Your task to perform on an android device: set the stopwatch Image 0: 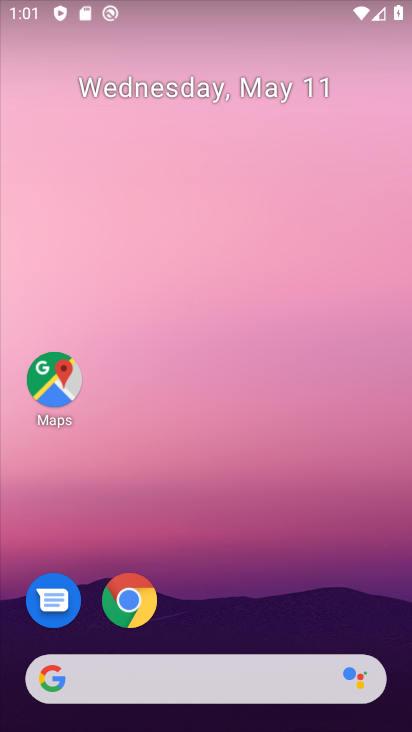
Step 0: drag from (262, 544) to (330, 279)
Your task to perform on an android device: set the stopwatch Image 1: 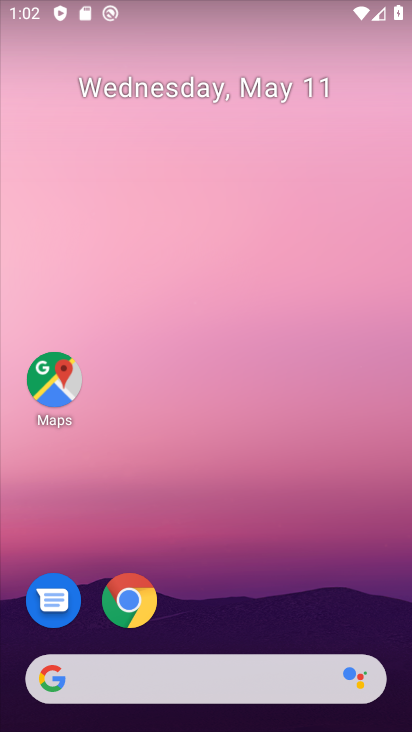
Step 1: drag from (254, 602) to (249, 202)
Your task to perform on an android device: set the stopwatch Image 2: 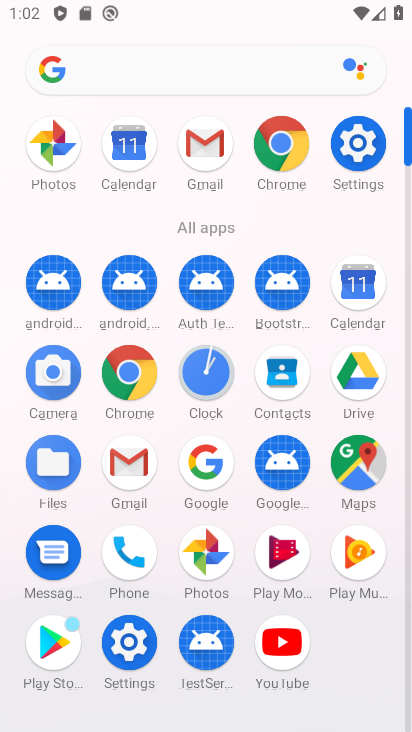
Step 2: click (211, 360)
Your task to perform on an android device: set the stopwatch Image 3: 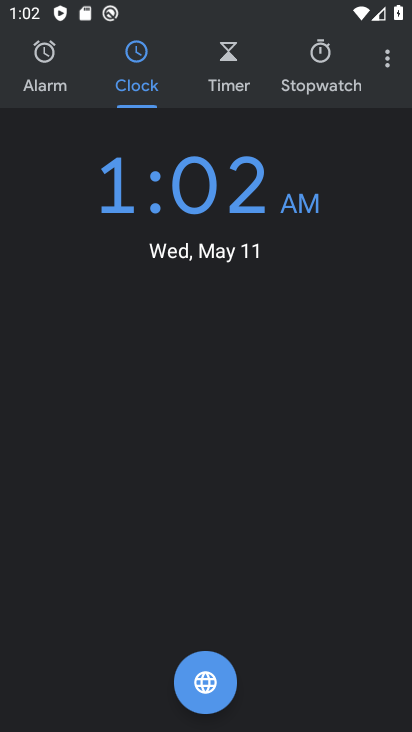
Step 3: click (311, 57)
Your task to perform on an android device: set the stopwatch Image 4: 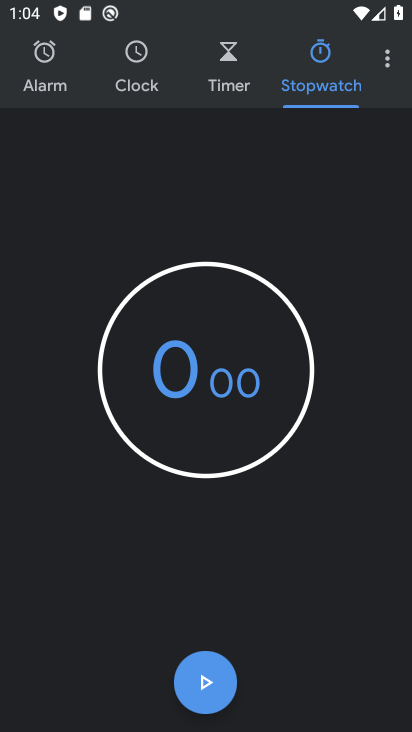
Step 4: task complete